Your task to perform on an android device: Open the calendar app, open the side menu, and click the "Day" option Image 0: 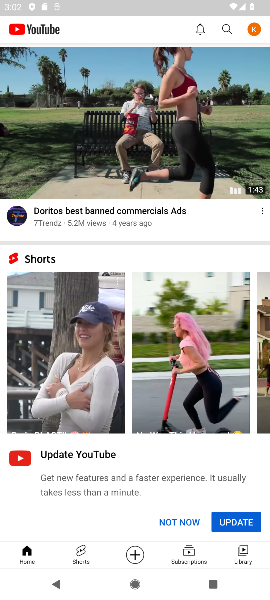
Step 0: press home button
Your task to perform on an android device: Open the calendar app, open the side menu, and click the "Day" option Image 1: 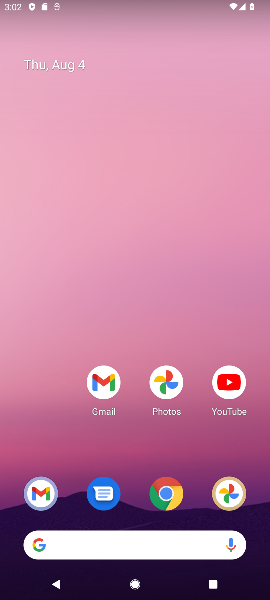
Step 1: drag from (88, 531) to (164, 258)
Your task to perform on an android device: Open the calendar app, open the side menu, and click the "Day" option Image 2: 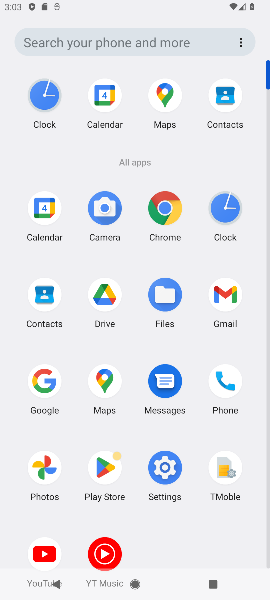
Step 2: click (25, 199)
Your task to perform on an android device: Open the calendar app, open the side menu, and click the "Day" option Image 3: 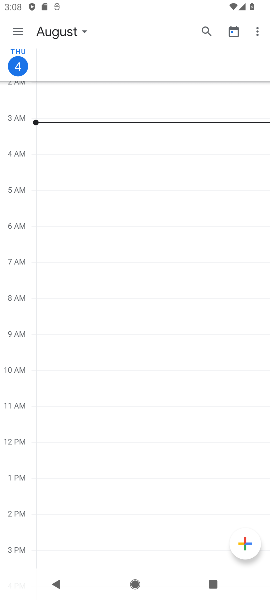
Step 3: click (26, 33)
Your task to perform on an android device: Open the calendar app, open the side menu, and click the "Day" option Image 4: 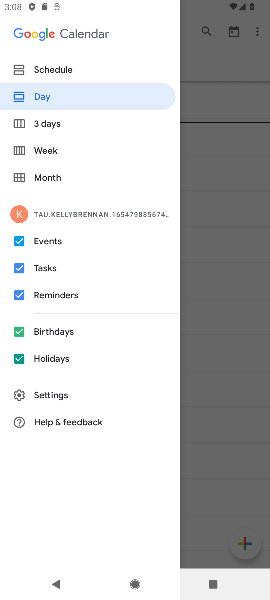
Step 4: click (85, 102)
Your task to perform on an android device: Open the calendar app, open the side menu, and click the "Day" option Image 5: 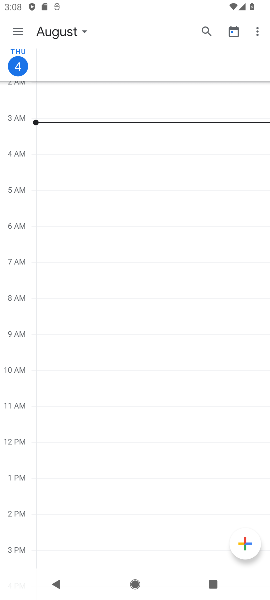
Step 5: task complete